Your task to perform on an android device: Search for seafood restaurants on Google Maps Image 0: 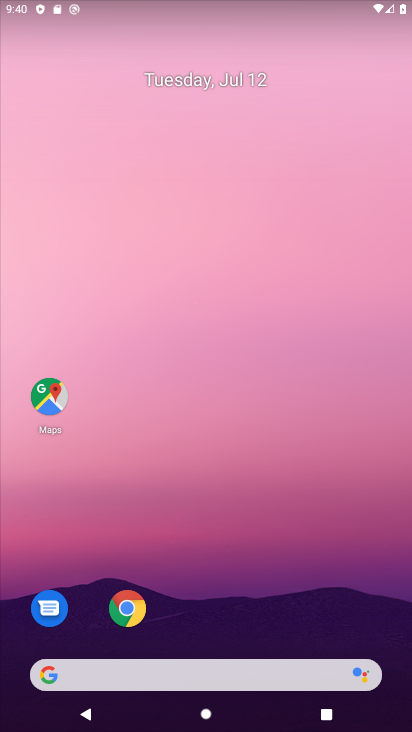
Step 0: click (40, 399)
Your task to perform on an android device: Search for seafood restaurants on Google Maps Image 1: 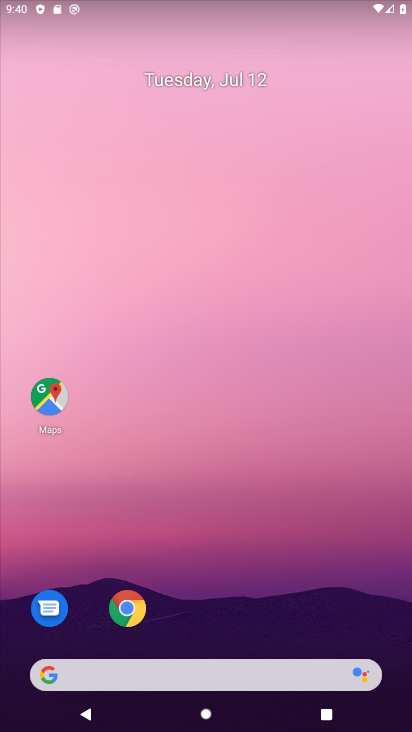
Step 1: click (40, 399)
Your task to perform on an android device: Search for seafood restaurants on Google Maps Image 2: 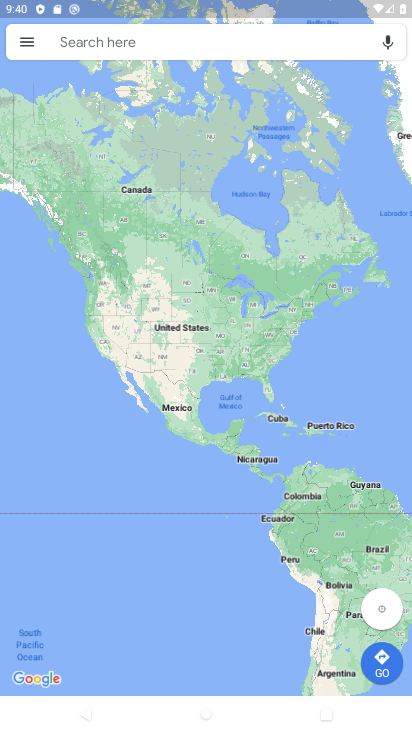
Step 2: click (110, 37)
Your task to perform on an android device: Search for seafood restaurants on Google Maps Image 3: 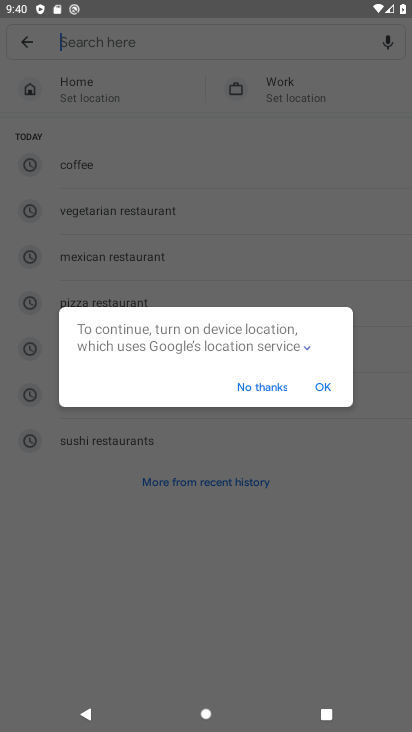
Step 3: click (317, 385)
Your task to perform on an android device: Search for seafood restaurants on Google Maps Image 4: 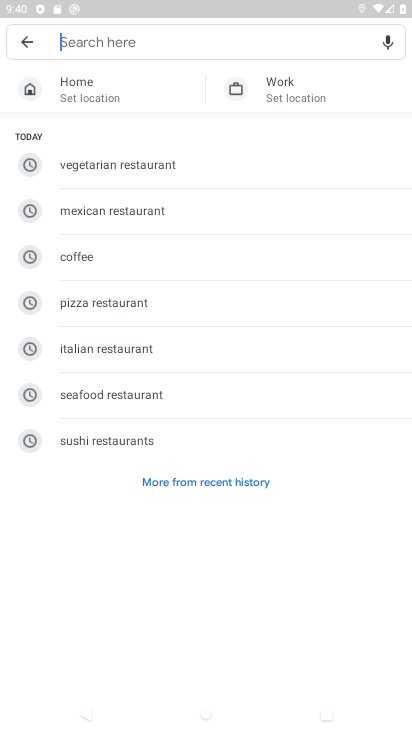
Step 4: type "seafood restaurants"
Your task to perform on an android device: Search for seafood restaurants on Google Maps Image 5: 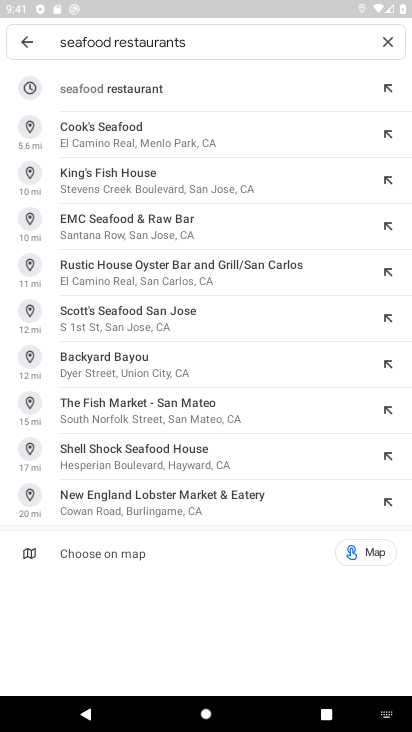
Step 5: click (216, 86)
Your task to perform on an android device: Search for seafood restaurants on Google Maps Image 6: 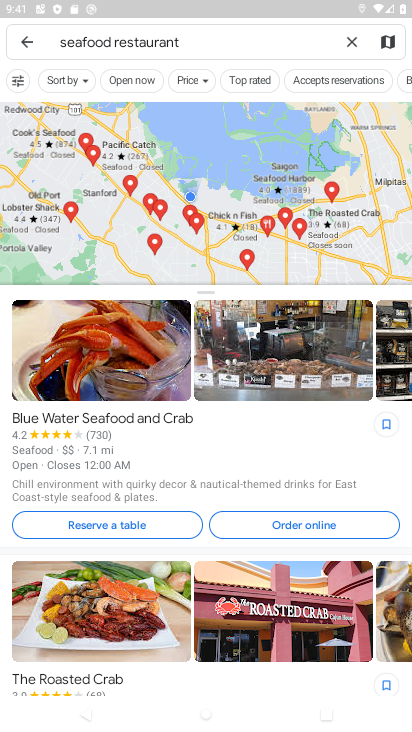
Step 6: task complete